Your task to perform on an android device: Open Wikipedia Image 0: 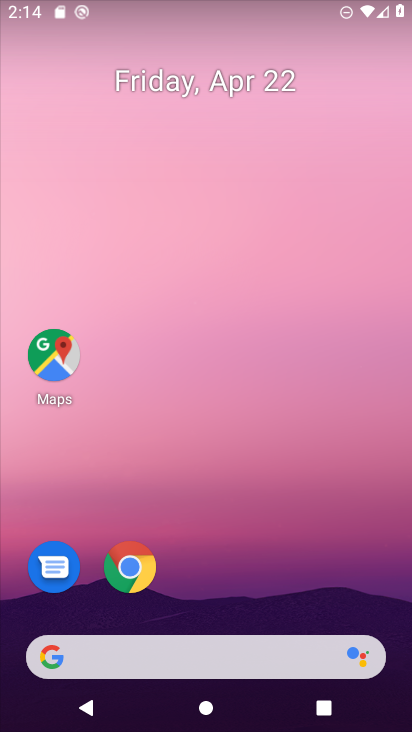
Step 0: click (129, 582)
Your task to perform on an android device: Open Wikipedia Image 1: 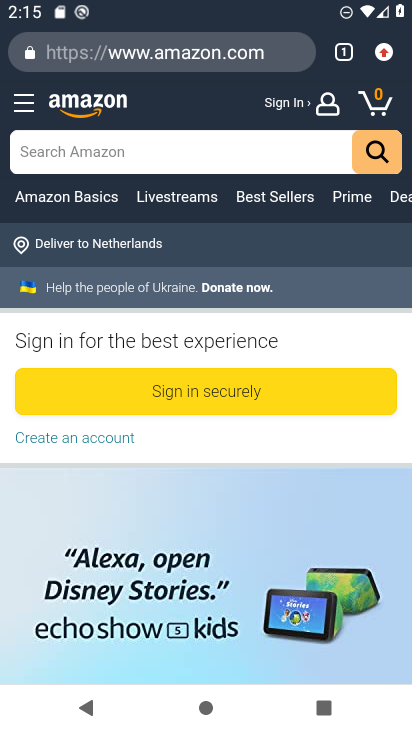
Step 1: click (346, 55)
Your task to perform on an android device: Open Wikipedia Image 2: 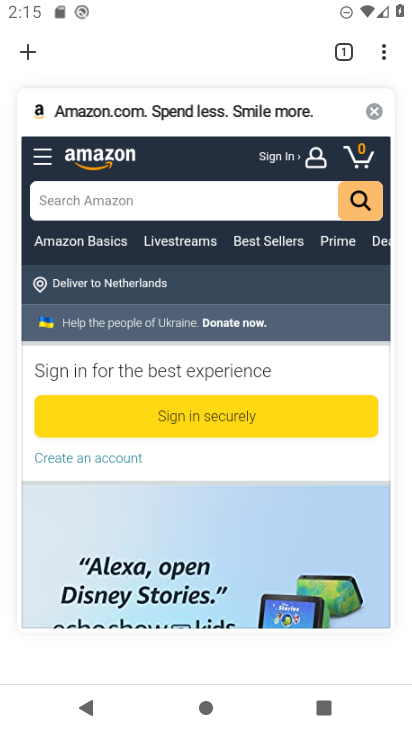
Step 2: click (22, 49)
Your task to perform on an android device: Open Wikipedia Image 3: 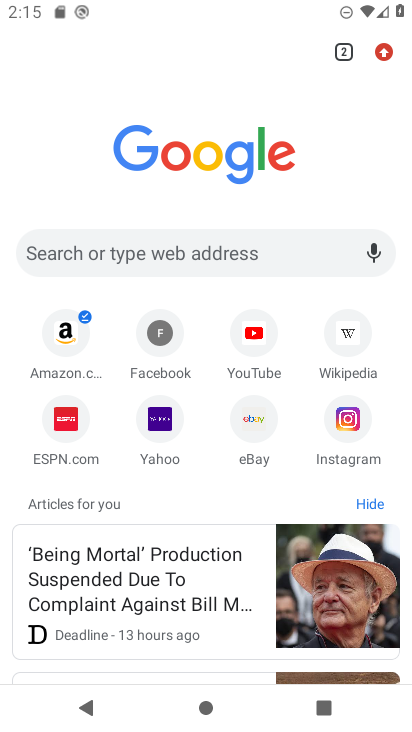
Step 3: click (358, 326)
Your task to perform on an android device: Open Wikipedia Image 4: 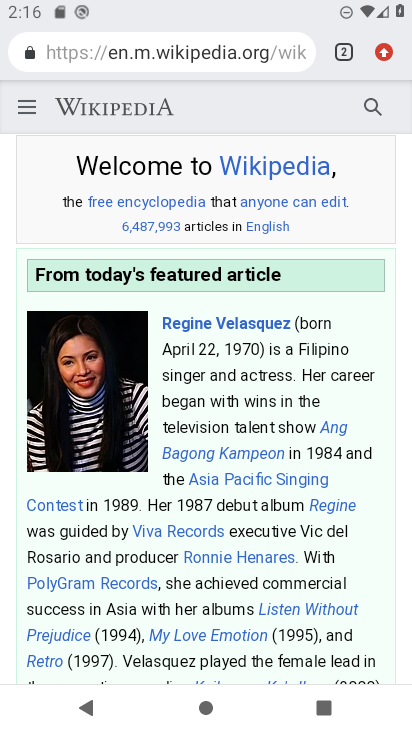
Step 4: task complete